Your task to perform on an android device: Open Google Chrome and open the bookmarks view Image 0: 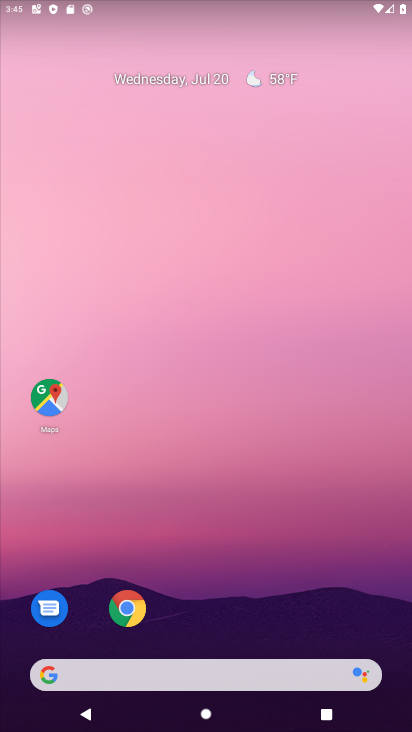
Step 0: click (118, 617)
Your task to perform on an android device: Open Google Chrome and open the bookmarks view Image 1: 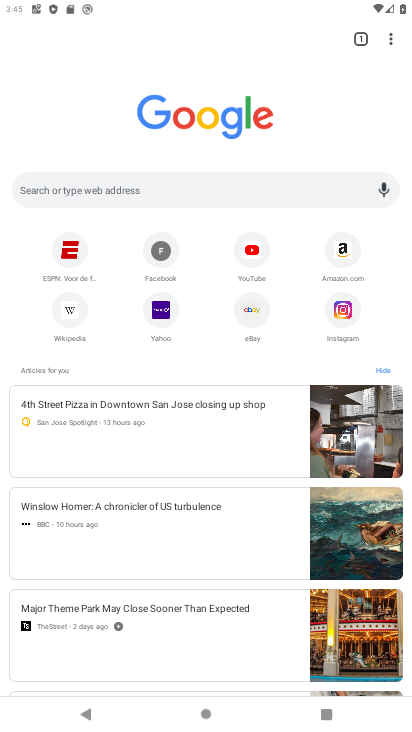
Step 1: click (387, 48)
Your task to perform on an android device: Open Google Chrome and open the bookmarks view Image 2: 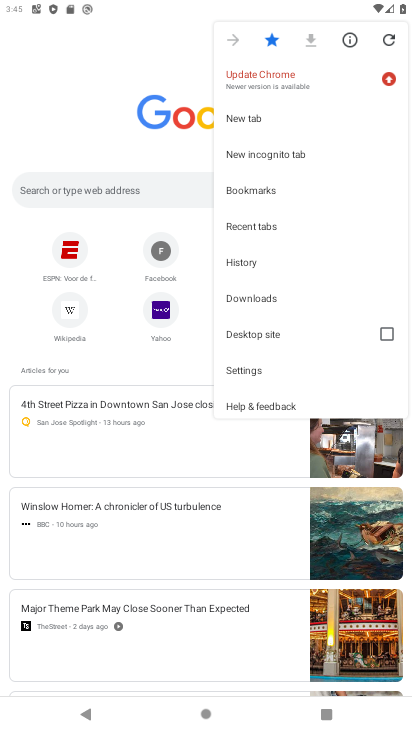
Step 2: click (272, 197)
Your task to perform on an android device: Open Google Chrome and open the bookmarks view Image 3: 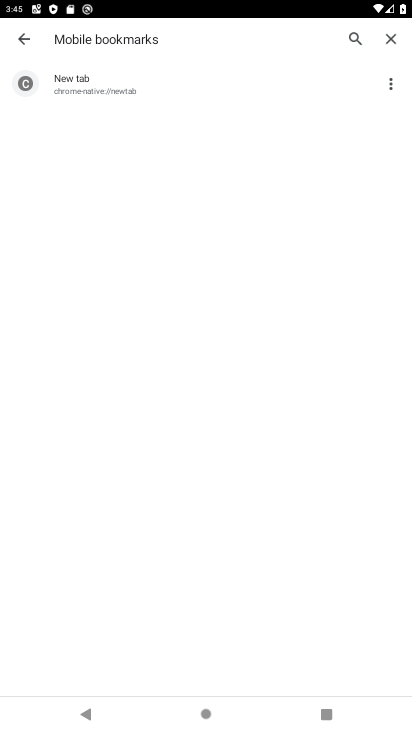
Step 3: task complete